Your task to perform on an android device: Go to display settings Image 0: 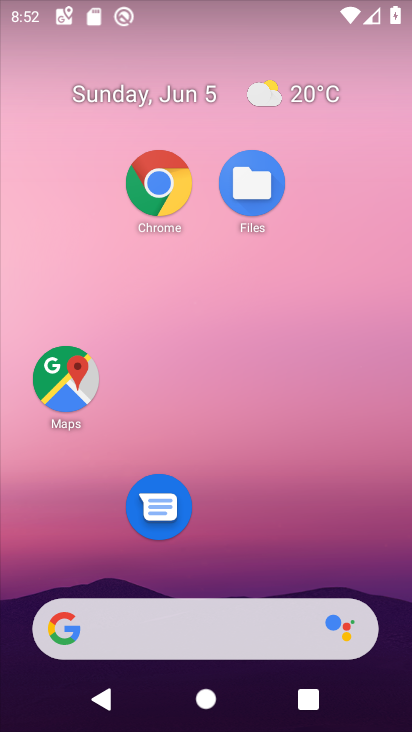
Step 0: drag from (222, 572) to (289, 6)
Your task to perform on an android device: Go to display settings Image 1: 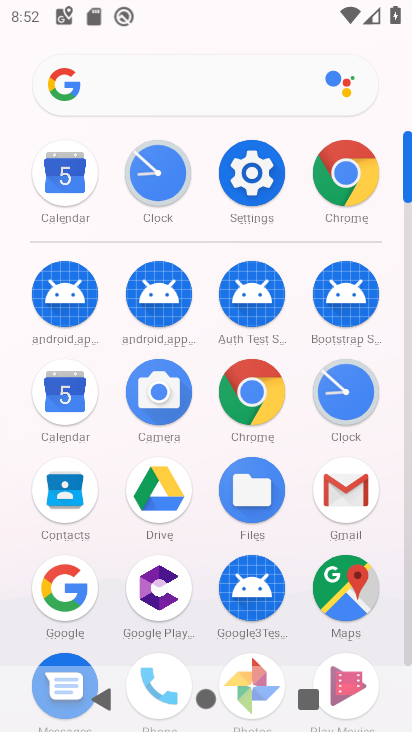
Step 1: click (260, 165)
Your task to perform on an android device: Go to display settings Image 2: 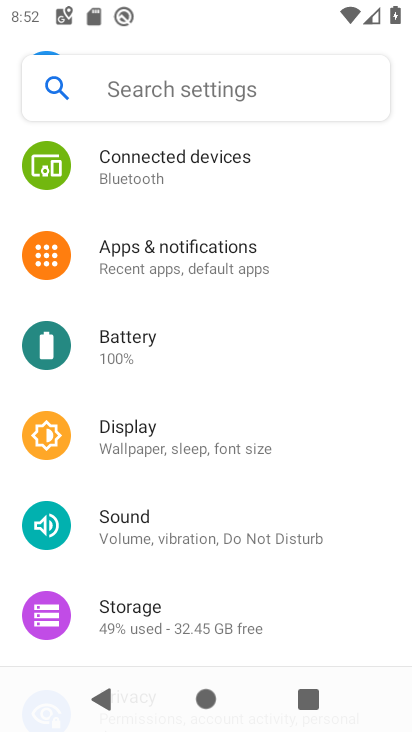
Step 2: click (130, 456)
Your task to perform on an android device: Go to display settings Image 3: 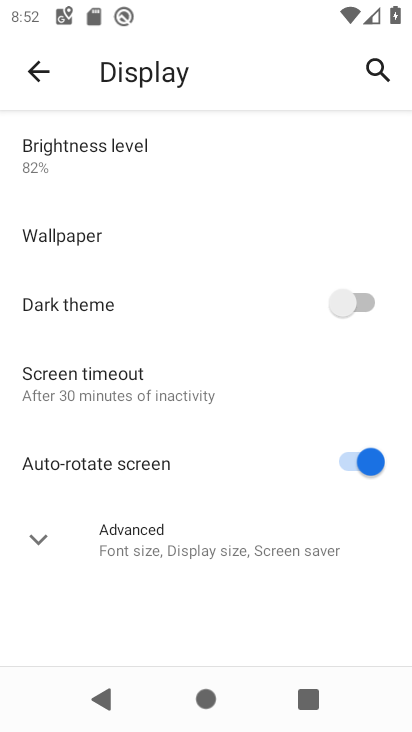
Step 3: task complete